Your task to perform on an android device: Go to ESPN.com Image 0: 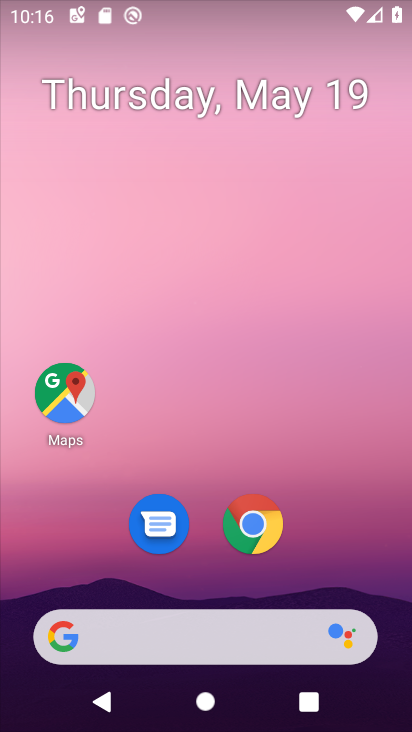
Step 0: type "espn.com"
Your task to perform on an android device: Go to ESPN.com Image 1: 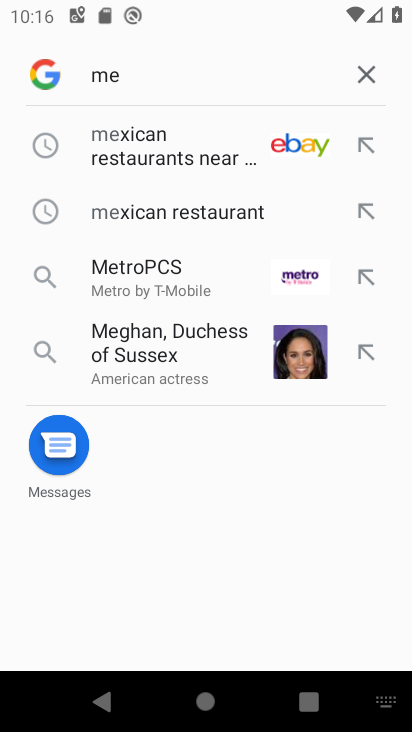
Step 1: click (213, 81)
Your task to perform on an android device: Go to ESPN.com Image 2: 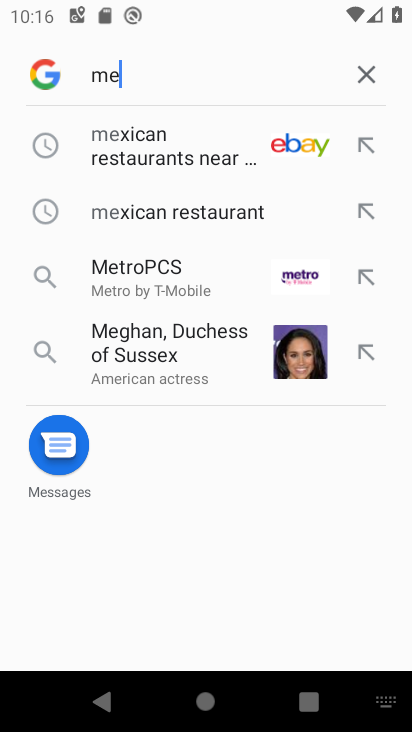
Step 2: click (368, 77)
Your task to perform on an android device: Go to ESPN.com Image 3: 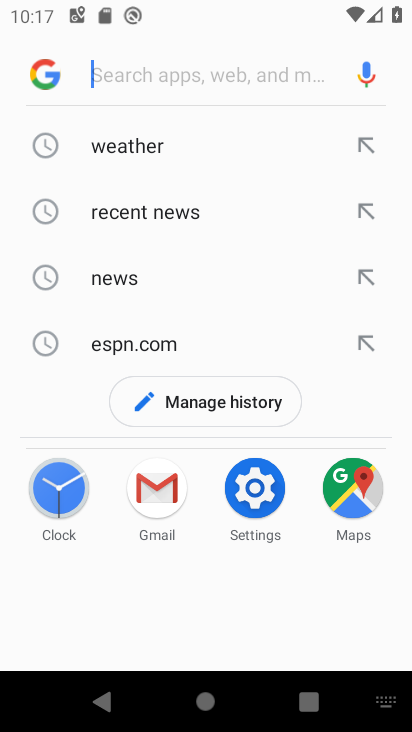
Step 3: type "espn.com"
Your task to perform on an android device: Go to ESPN.com Image 4: 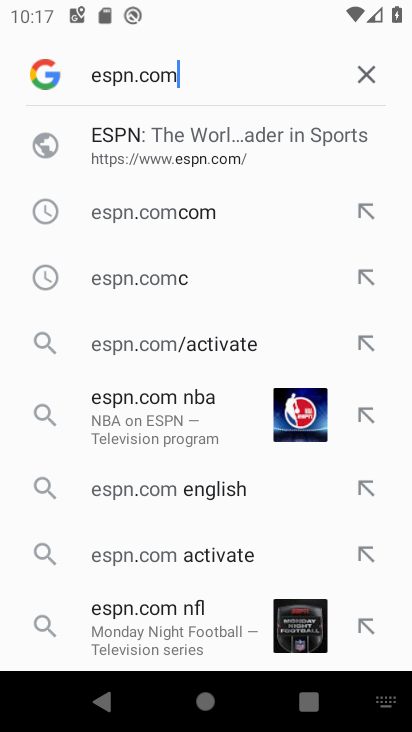
Step 4: click (108, 146)
Your task to perform on an android device: Go to ESPN.com Image 5: 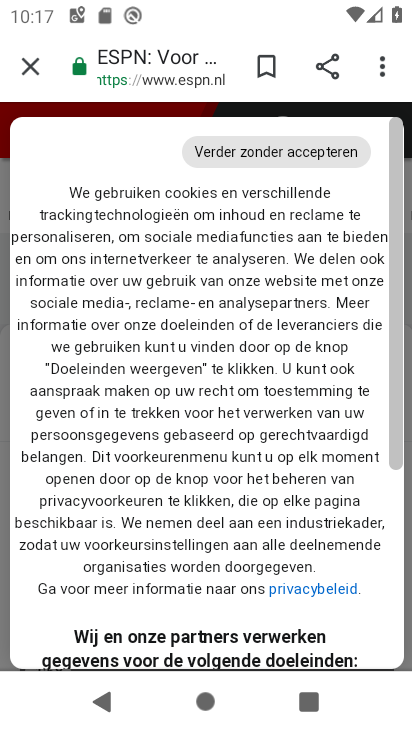
Step 5: task complete